Your task to perform on an android device: allow cookies in the chrome app Image 0: 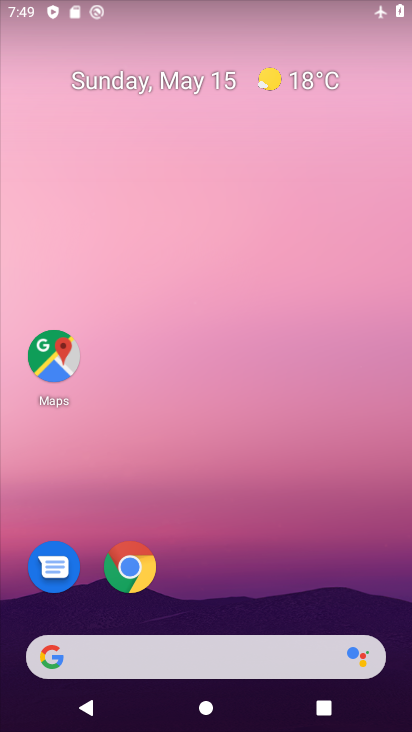
Step 0: click (136, 573)
Your task to perform on an android device: allow cookies in the chrome app Image 1: 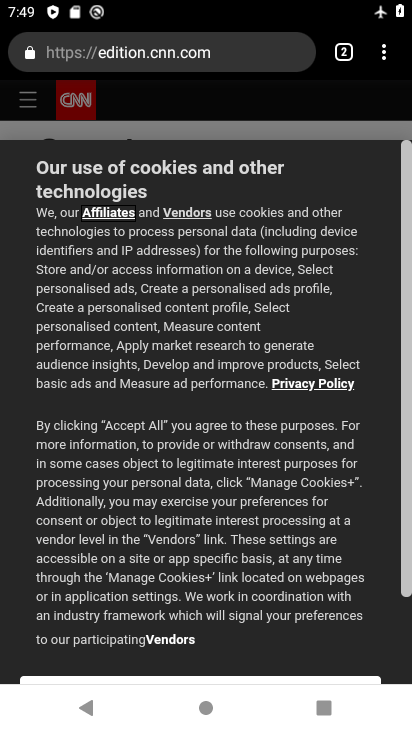
Step 1: click (382, 55)
Your task to perform on an android device: allow cookies in the chrome app Image 2: 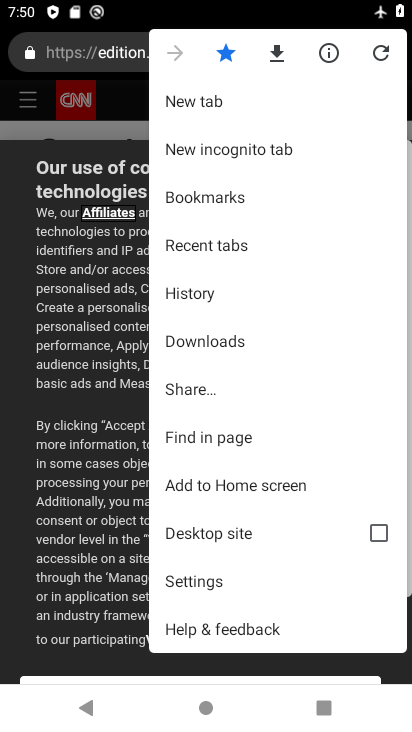
Step 2: click (233, 585)
Your task to perform on an android device: allow cookies in the chrome app Image 3: 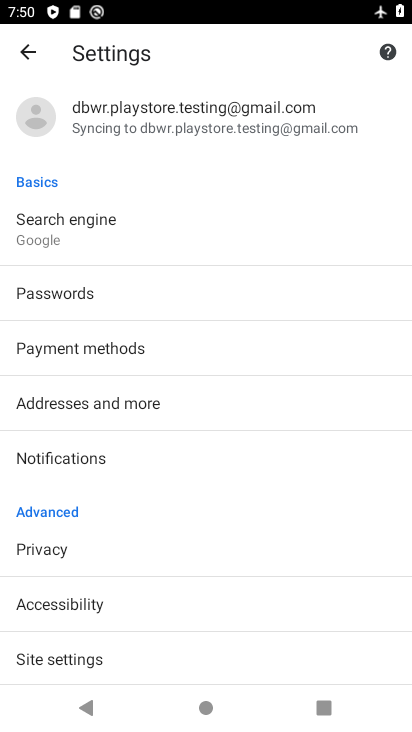
Step 3: click (74, 656)
Your task to perform on an android device: allow cookies in the chrome app Image 4: 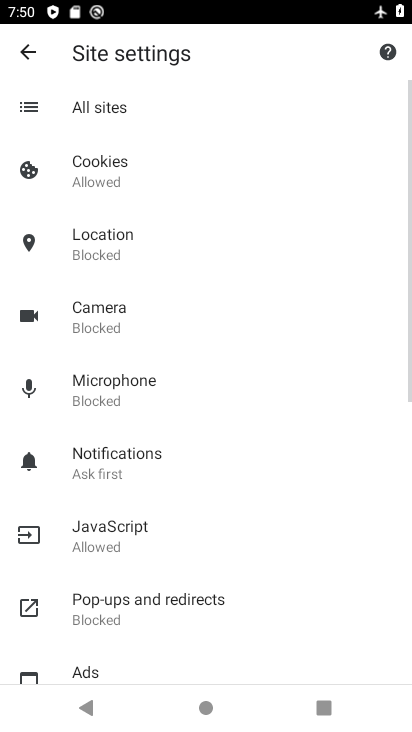
Step 4: click (92, 160)
Your task to perform on an android device: allow cookies in the chrome app Image 5: 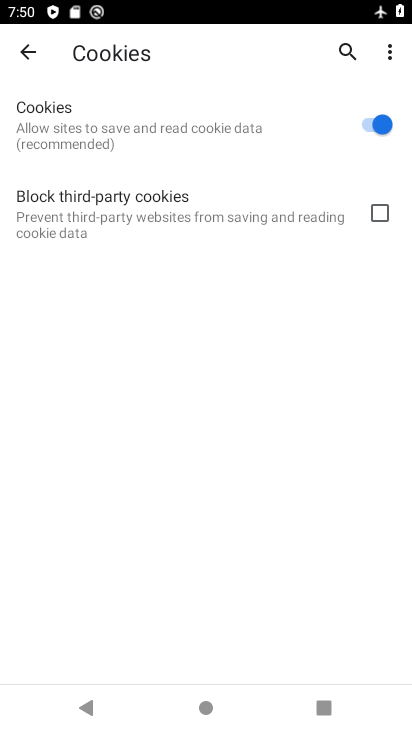
Step 5: task complete